Your task to perform on an android device: check battery use Image 0: 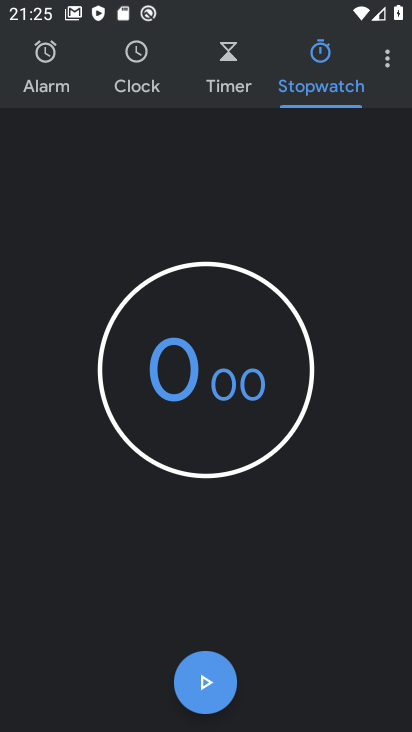
Step 0: press home button
Your task to perform on an android device: check battery use Image 1: 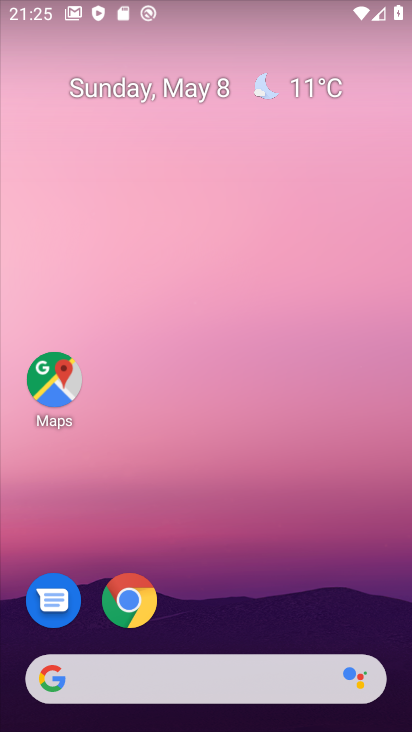
Step 1: drag from (246, 646) to (354, 4)
Your task to perform on an android device: check battery use Image 2: 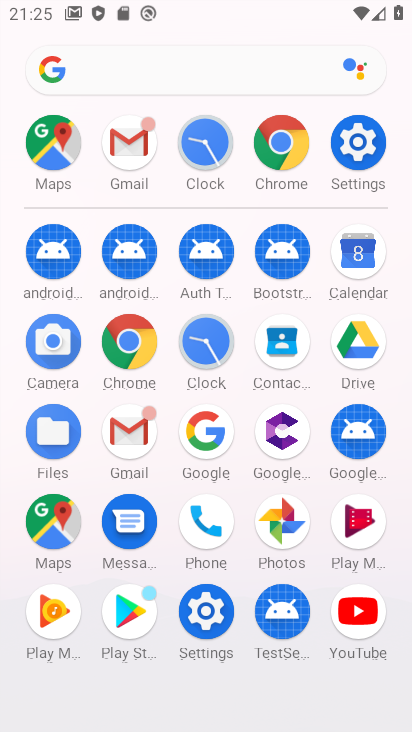
Step 2: click (353, 115)
Your task to perform on an android device: check battery use Image 3: 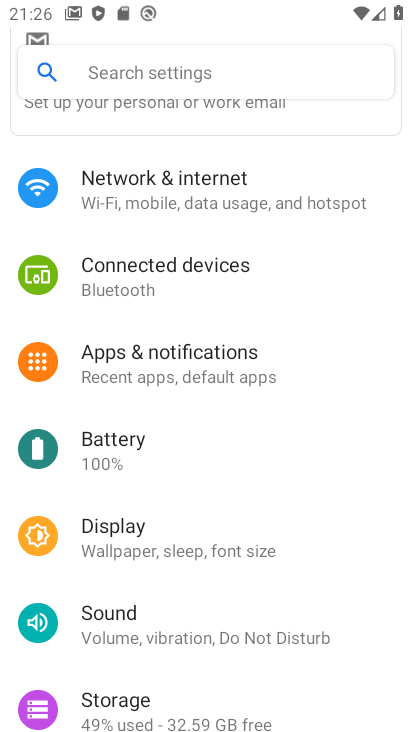
Step 3: click (140, 452)
Your task to perform on an android device: check battery use Image 4: 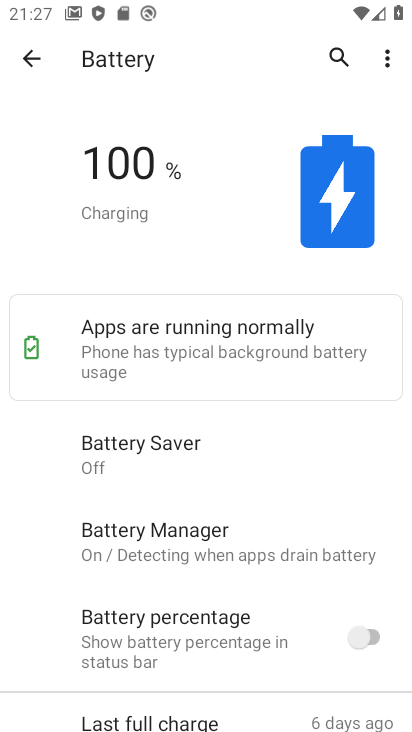
Step 4: click (387, 65)
Your task to perform on an android device: check battery use Image 5: 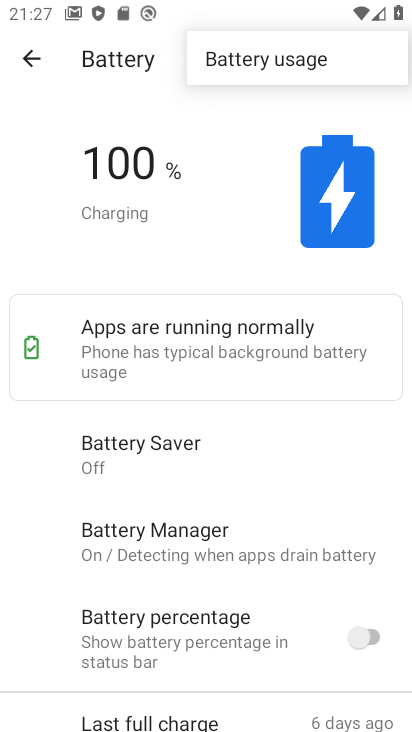
Step 5: click (368, 61)
Your task to perform on an android device: check battery use Image 6: 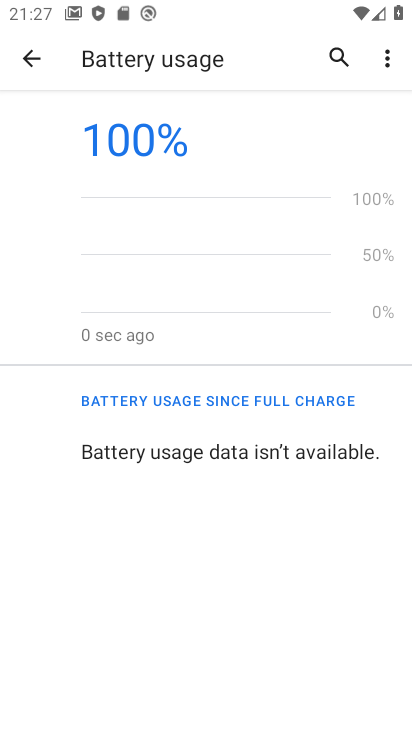
Step 6: task complete